Your task to perform on an android device: Open settings Image 0: 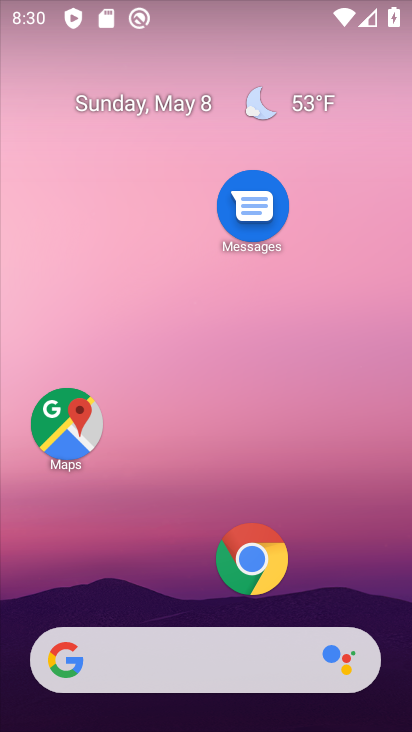
Step 0: drag from (168, 547) to (197, 83)
Your task to perform on an android device: Open settings Image 1: 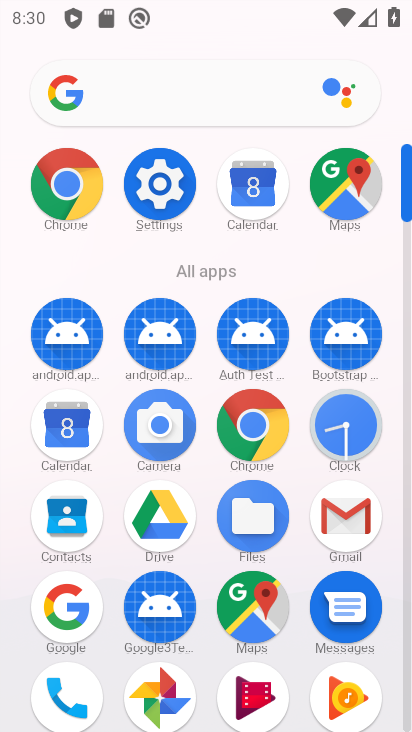
Step 1: click (161, 175)
Your task to perform on an android device: Open settings Image 2: 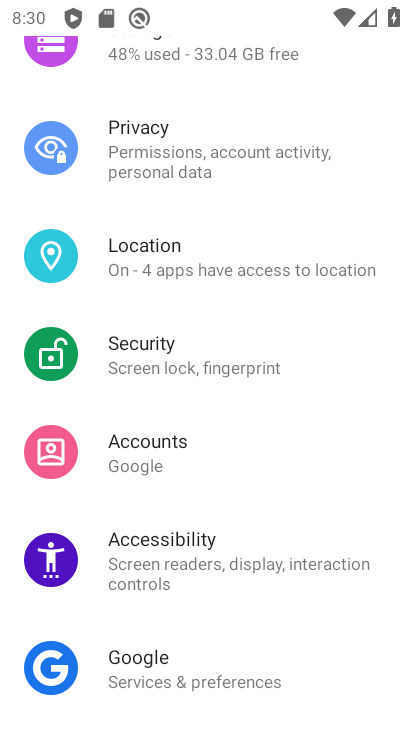
Step 2: task complete